Your task to perform on an android device: change the clock display to show seconds Image 0: 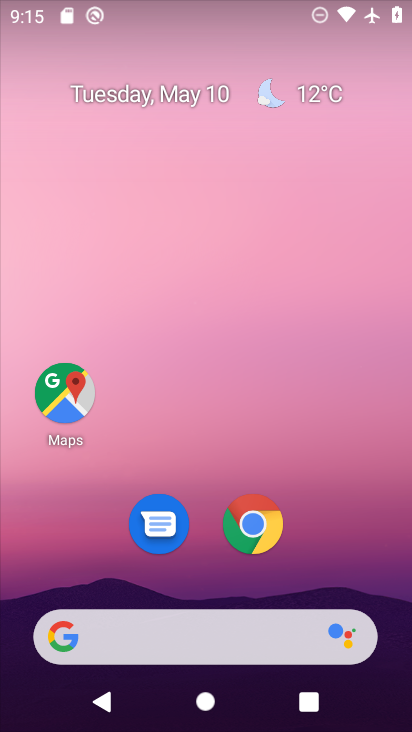
Step 0: drag from (345, 516) to (272, 57)
Your task to perform on an android device: change the clock display to show seconds Image 1: 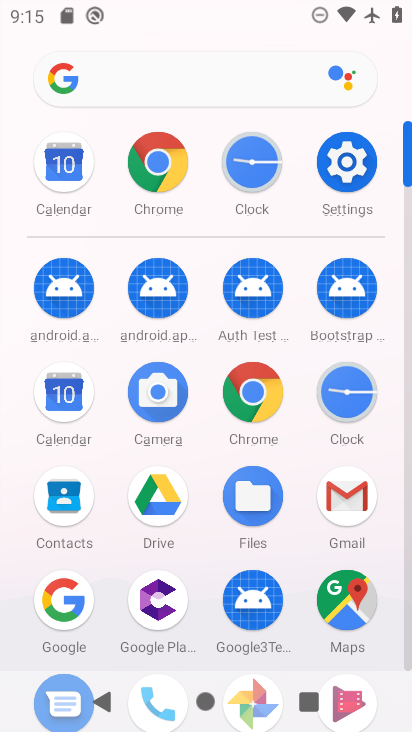
Step 1: click (258, 156)
Your task to perform on an android device: change the clock display to show seconds Image 2: 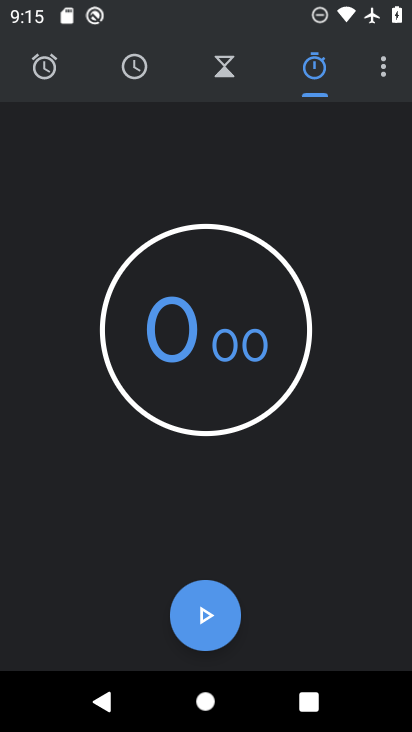
Step 2: click (373, 64)
Your task to perform on an android device: change the clock display to show seconds Image 3: 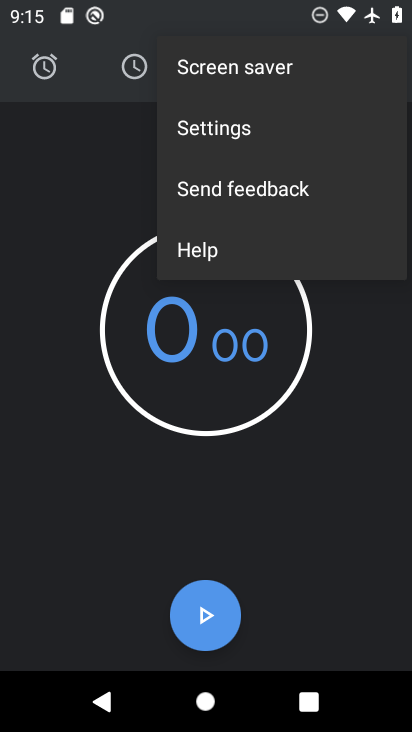
Step 3: click (286, 132)
Your task to perform on an android device: change the clock display to show seconds Image 4: 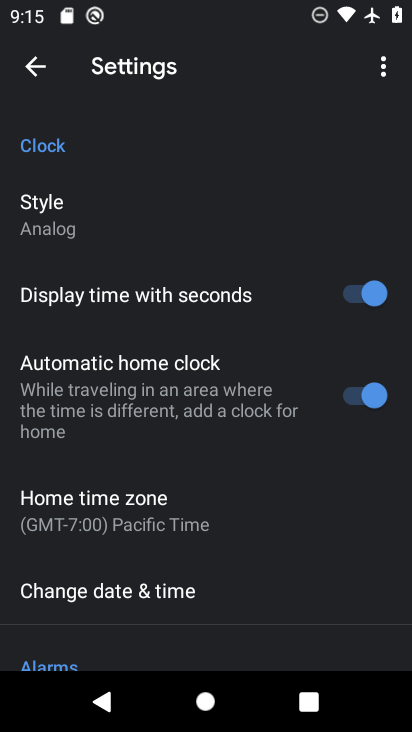
Step 4: task complete